Your task to perform on an android device: toggle airplane mode Image 0: 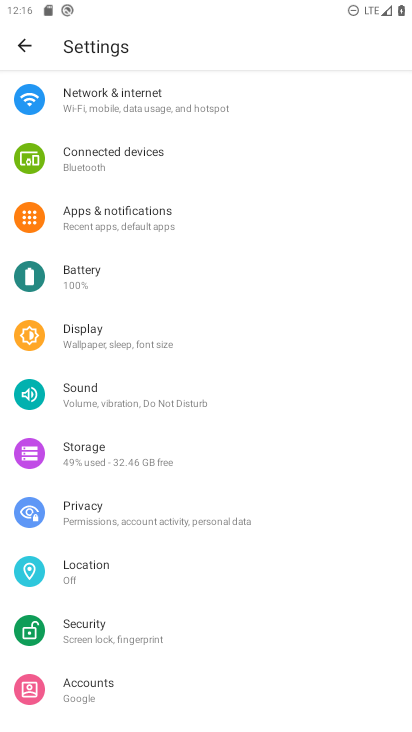
Step 0: click (126, 112)
Your task to perform on an android device: toggle airplane mode Image 1: 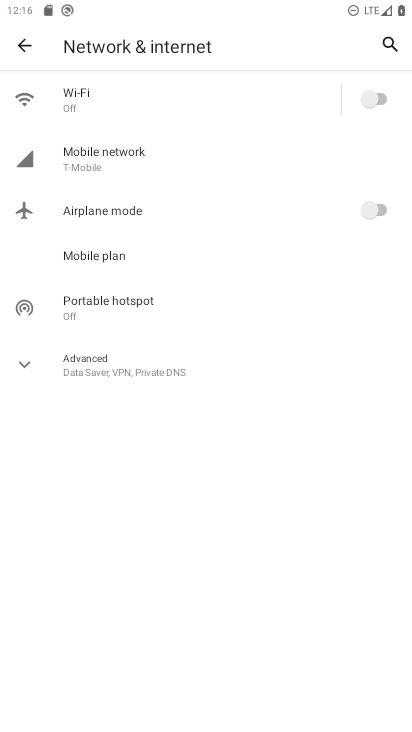
Step 1: click (346, 204)
Your task to perform on an android device: toggle airplane mode Image 2: 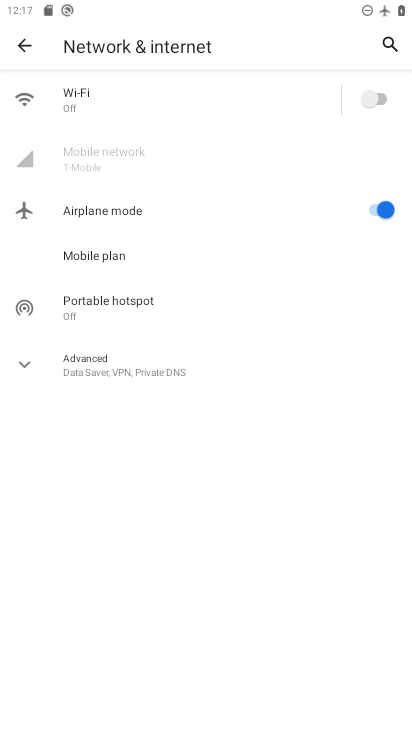
Step 2: task complete